Your task to perform on an android device: Go to notification settings Image 0: 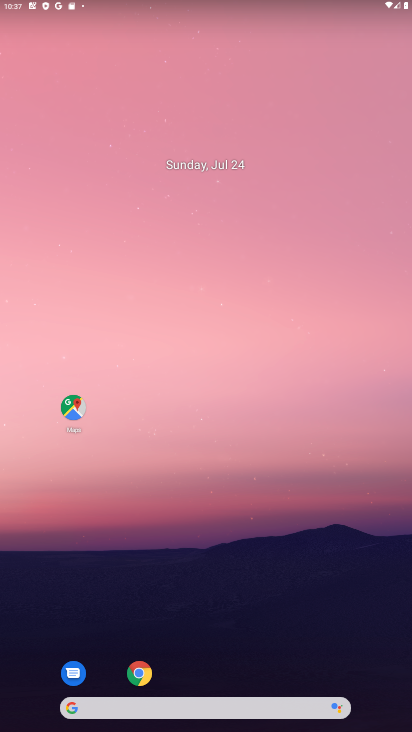
Step 0: drag from (41, 551) to (138, 36)
Your task to perform on an android device: Go to notification settings Image 1: 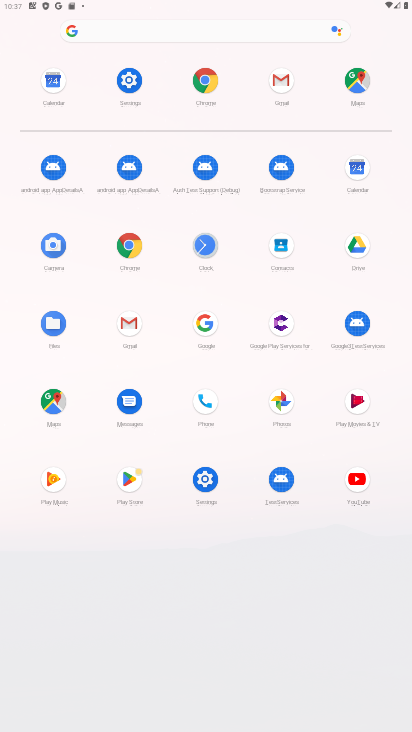
Step 1: click (213, 474)
Your task to perform on an android device: Go to notification settings Image 2: 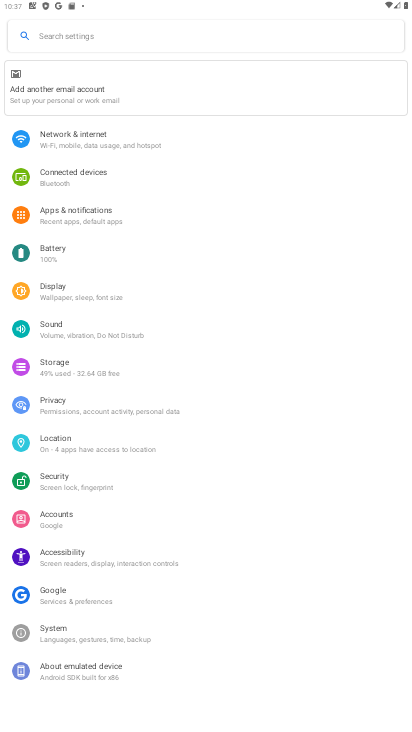
Step 2: click (55, 218)
Your task to perform on an android device: Go to notification settings Image 3: 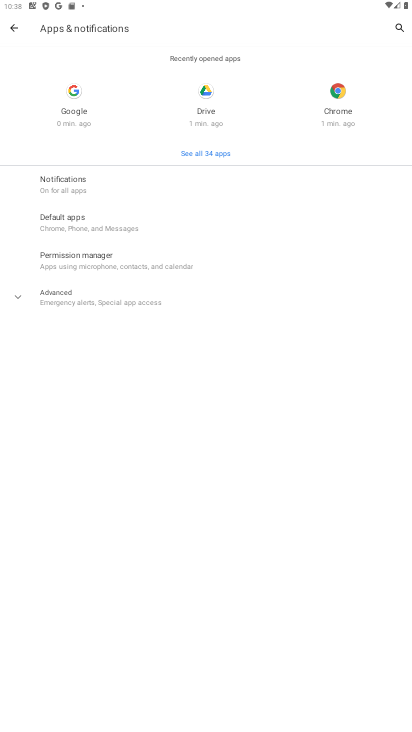
Step 3: task complete